Your task to perform on an android device: Is it going to rain today? Image 0: 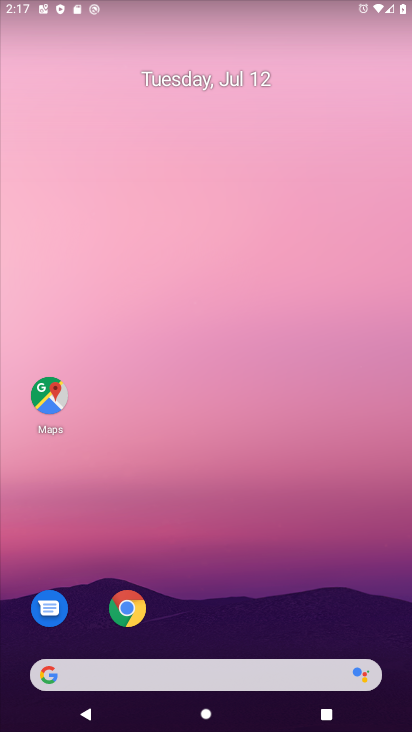
Step 0: drag from (298, 577) to (237, 181)
Your task to perform on an android device: Is it going to rain today? Image 1: 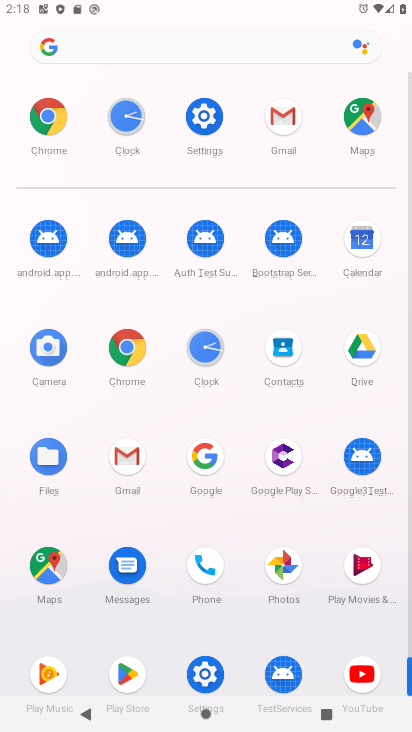
Step 1: click (52, 114)
Your task to perform on an android device: Is it going to rain today? Image 2: 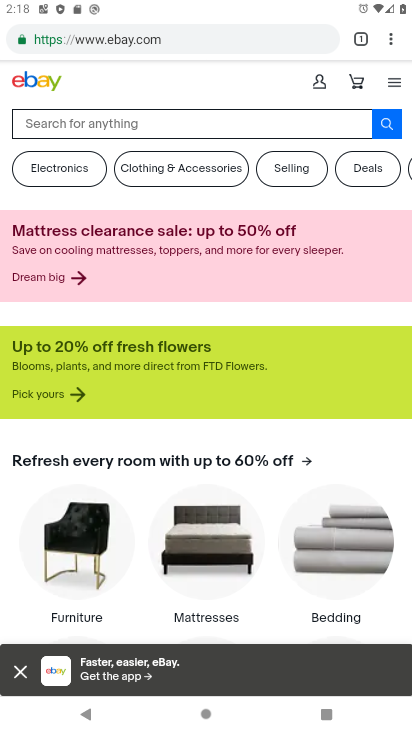
Step 2: click (211, 40)
Your task to perform on an android device: Is it going to rain today? Image 3: 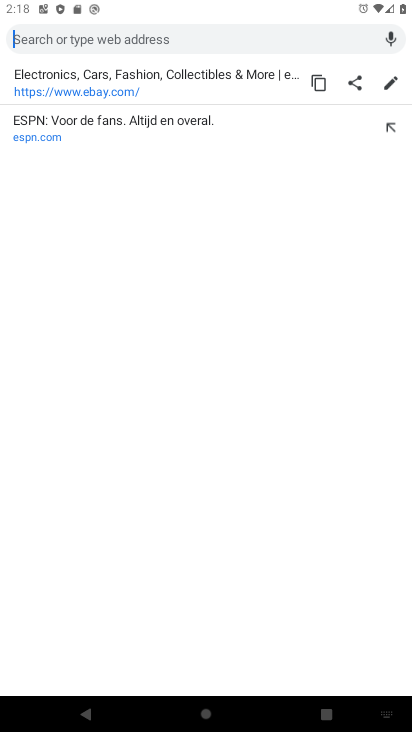
Step 3: type "weather"
Your task to perform on an android device: Is it going to rain today? Image 4: 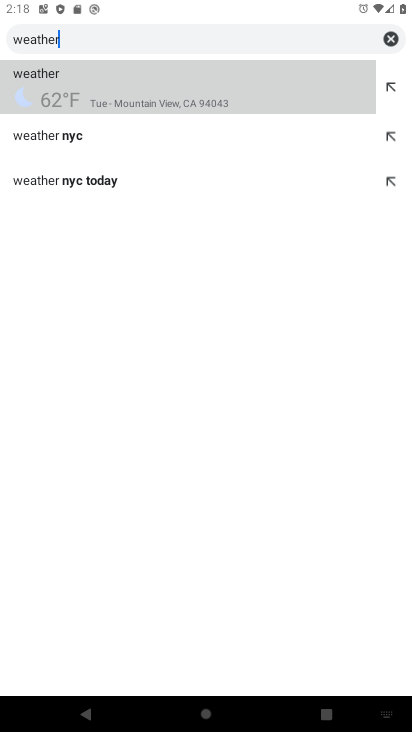
Step 4: click (189, 98)
Your task to perform on an android device: Is it going to rain today? Image 5: 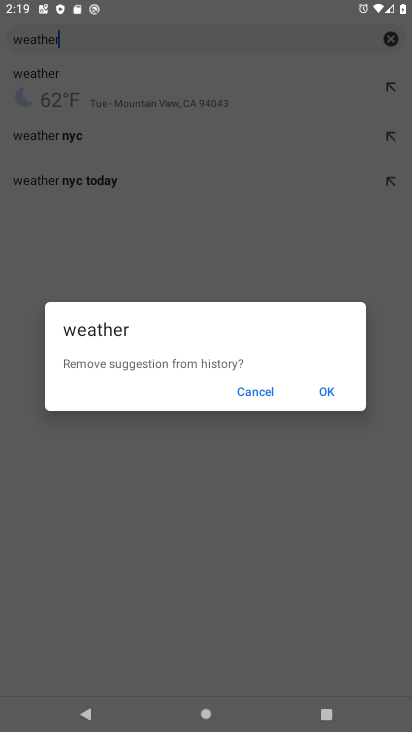
Step 5: click (262, 388)
Your task to perform on an android device: Is it going to rain today? Image 6: 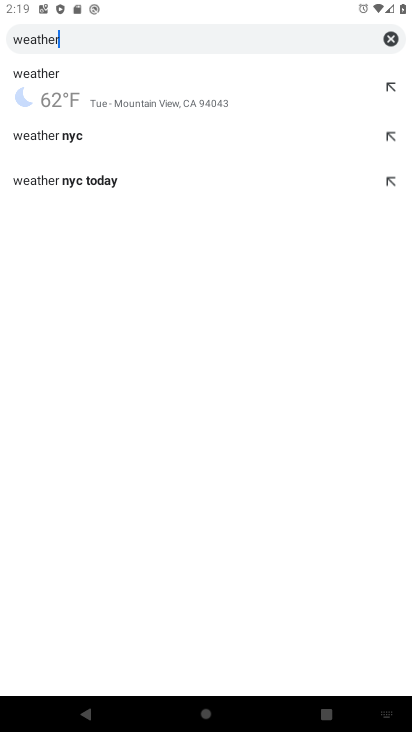
Step 6: click (75, 98)
Your task to perform on an android device: Is it going to rain today? Image 7: 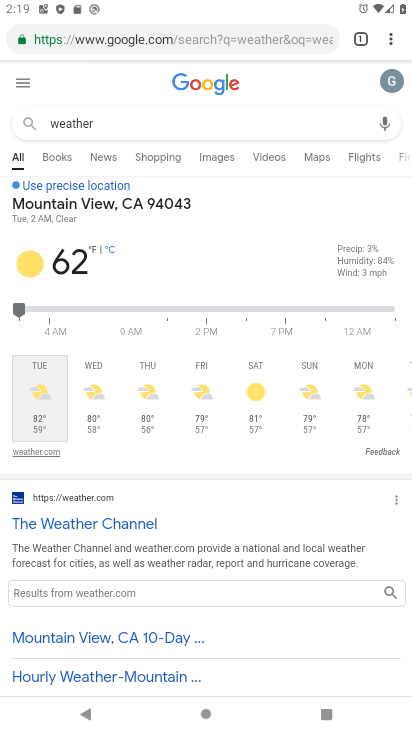
Step 7: task complete